Your task to perform on an android device: add a label to a message in the gmail app Image 0: 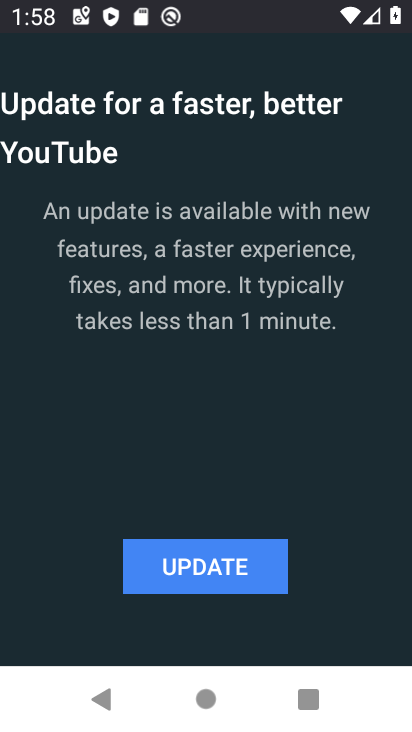
Step 0: press home button
Your task to perform on an android device: add a label to a message in the gmail app Image 1: 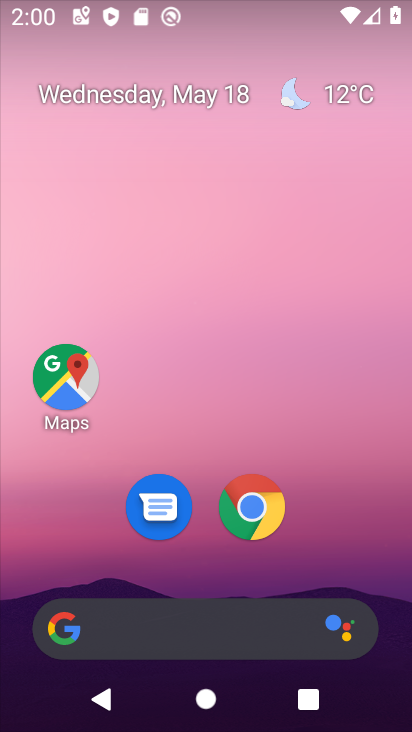
Step 1: click (338, 295)
Your task to perform on an android device: add a label to a message in the gmail app Image 2: 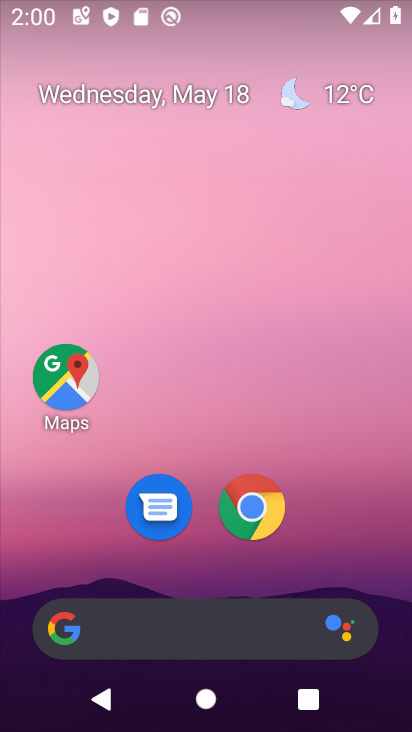
Step 2: drag from (398, 692) to (342, 183)
Your task to perform on an android device: add a label to a message in the gmail app Image 3: 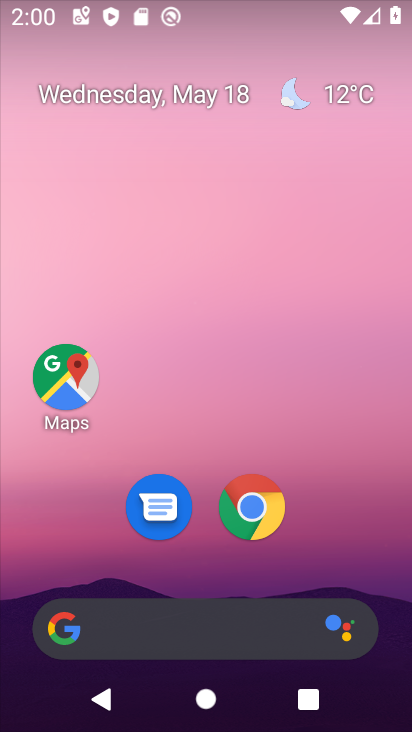
Step 3: drag from (397, 713) to (368, 112)
Your task to perform on an android device: add a label to a message in the gmail app Image 4: 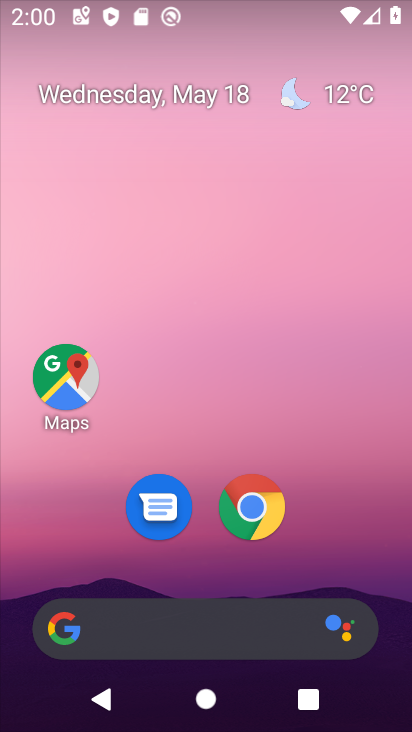
Step 4: drag from (391, 705) to (349, 123)
Your task to perform on an android device: add a label to a message in the gmail app Image 5: 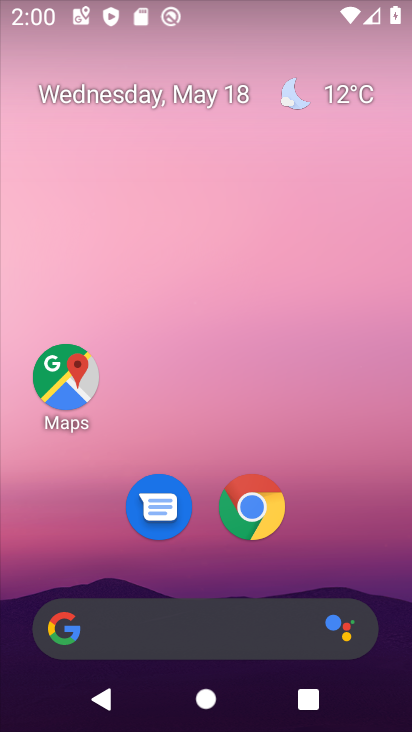
Step 5: drag from (377, 519) to (271, 47)
Your task to perform on an android device: add a label to a message in the gmail app Image 6: 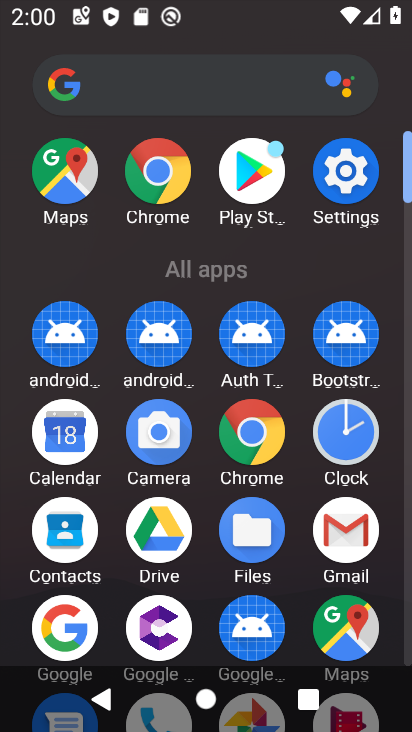
Step 6: click (323, 537)
Your task to perform on an android device: add a label to a message in the gmail app Image 7: 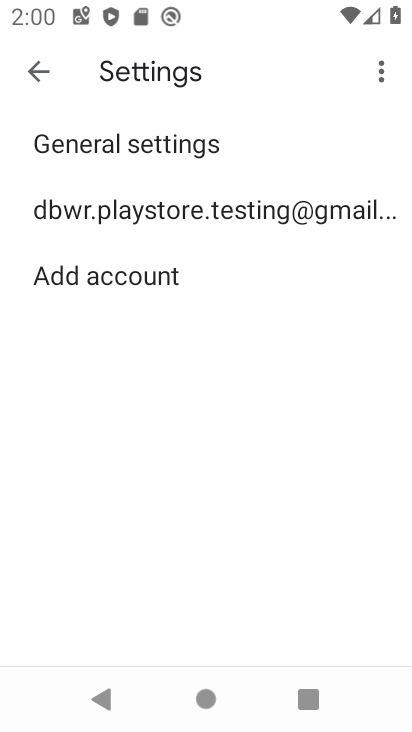
Step 7: click (38, 74)
Your task to perform on an android device: add a label to a message in the gmail app Image 8: 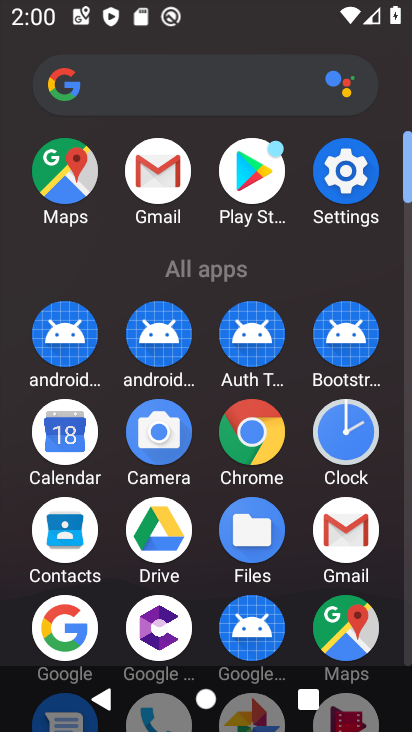
Step 8: click (165, 170)
Your task to perform on an android device: add a label to a message in the gmail app Image 9: 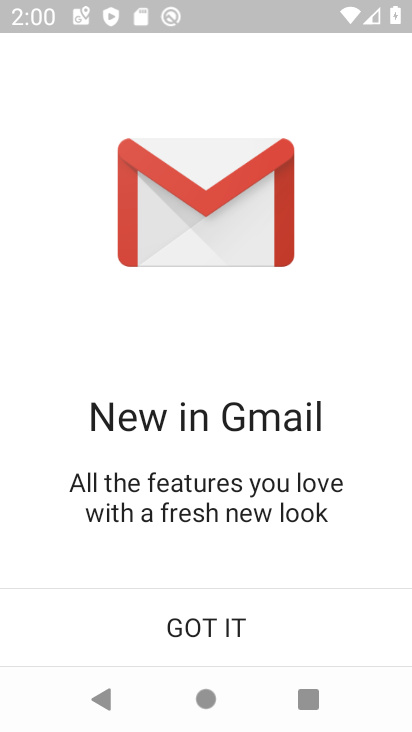
Step 9: click (223, 625)
Your task to perform on an android device: add a label to a message in the gmail app Image 10: 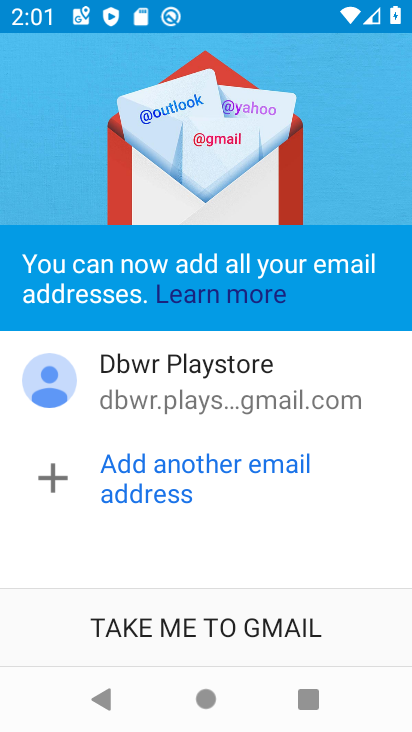
Step 10: click (272, 627)
Your task to perform on an android device: add a label to a message in the gmail app Image 11: 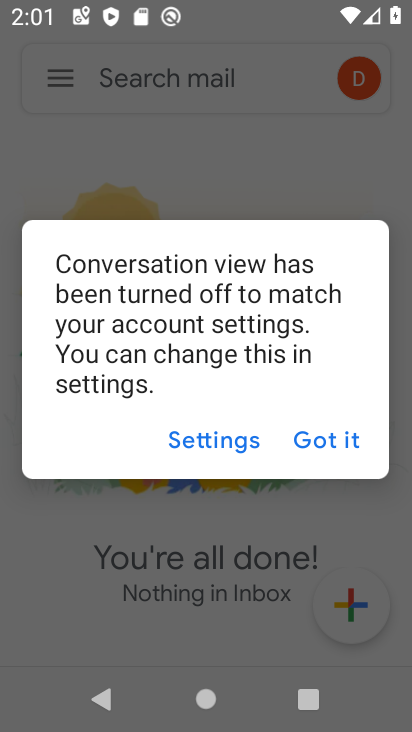
Step 11: click (330, 435)
Your task to perform on an android device: add a label to a message in the gmail app Image 12: 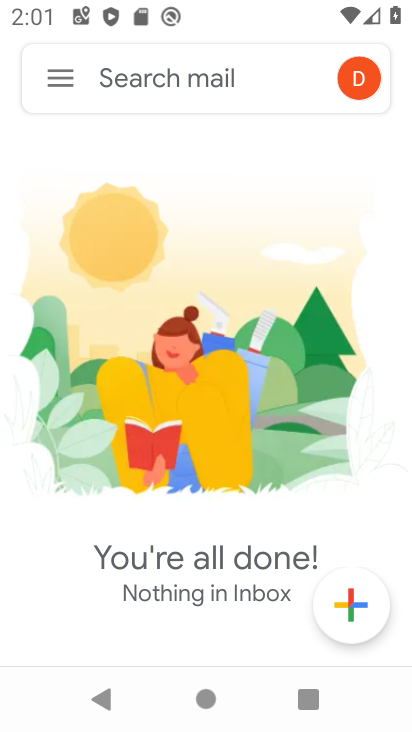
Step 12: click (57, 87)
Your task to perform on an android device: add a label to a message in the gmail app Image 13: 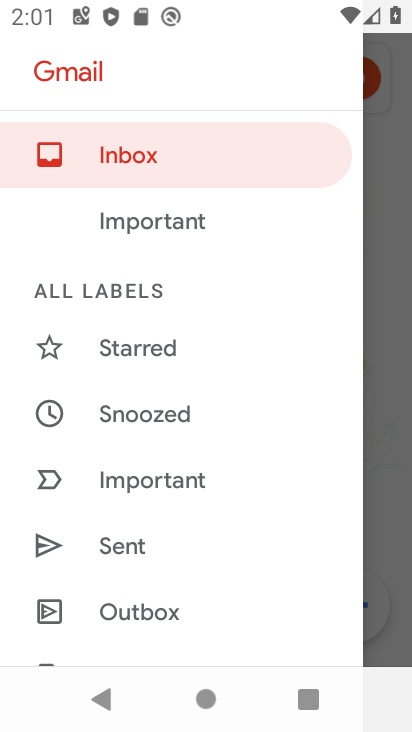
Step 13: click (133, 172)
Your task to perform on an android device: add a label to a message in the gmail app Image 14: 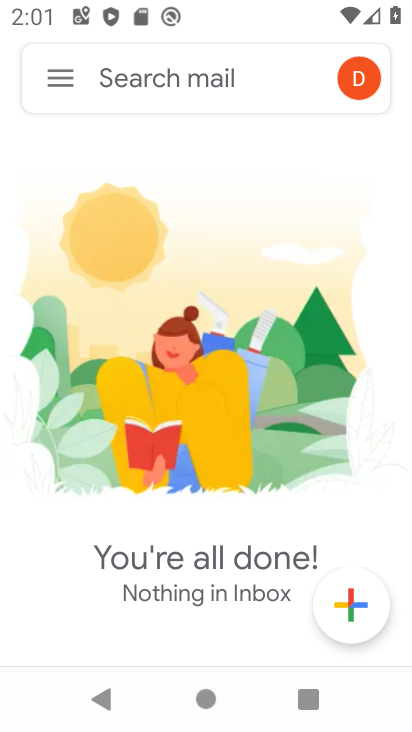
Step 14: task complete